Your task to perform on an android device: Open Youtube and go to "Your channel" Image 0: 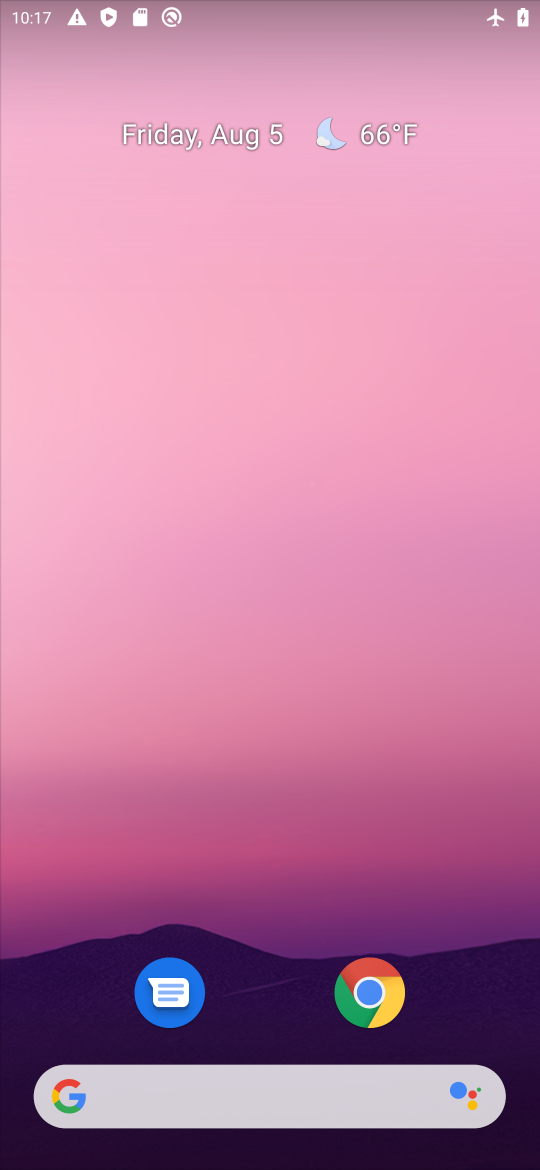
Step 0: drag from (307, 1131) to (283, 280)
Your task to perform on an android device: Open Youtube and go to "Your channel" Image 1: 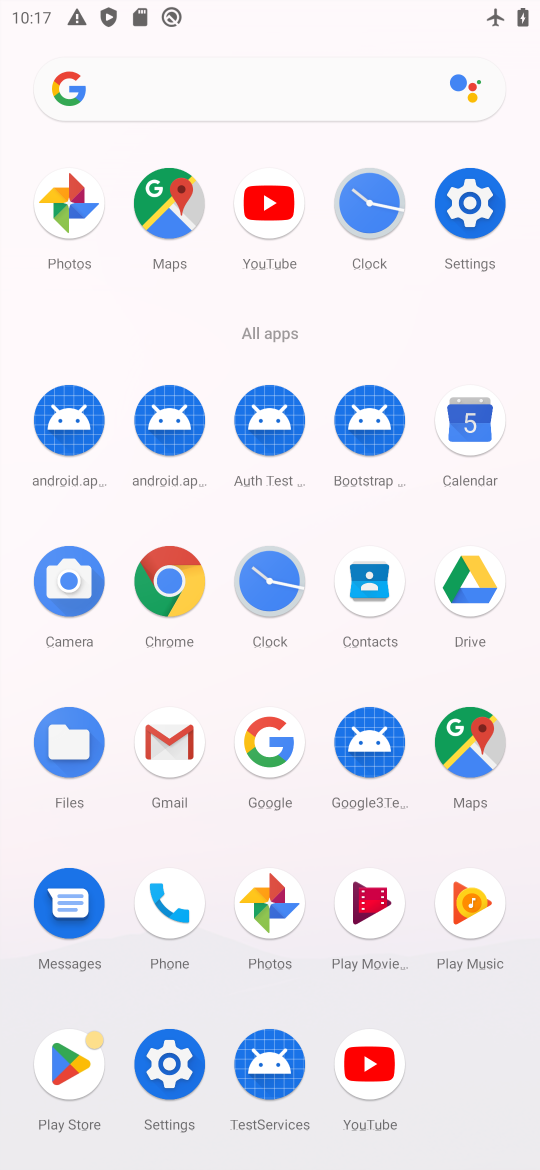
Step 1: click (387, 1063)
Your task to perform on an android device: Open Youtube and go to "Your channel" Image 2: 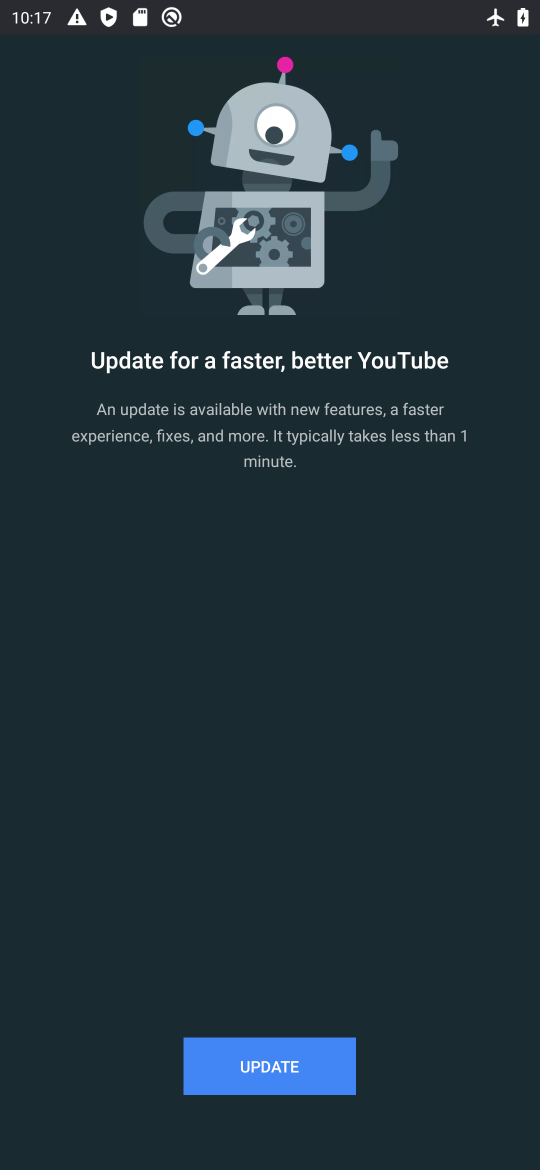
Step 2: task complete